Your task to perform on an android device: Open Youtube and go to the subscriptions tab Image 0: 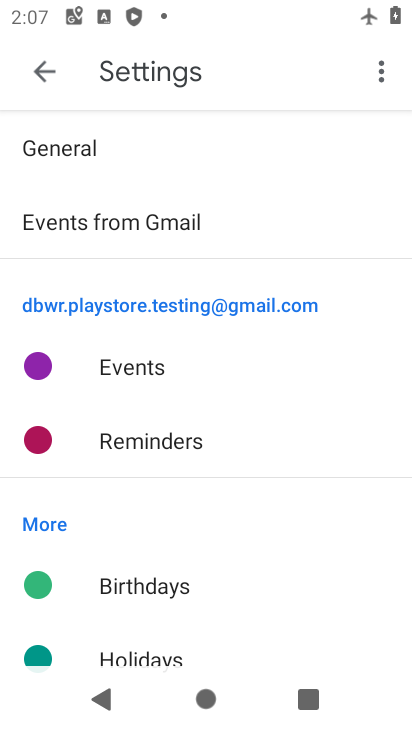
Step 0: press home button
Your task to perform on an android device: Open Youtube and go to the subscriptions tab Image 1: 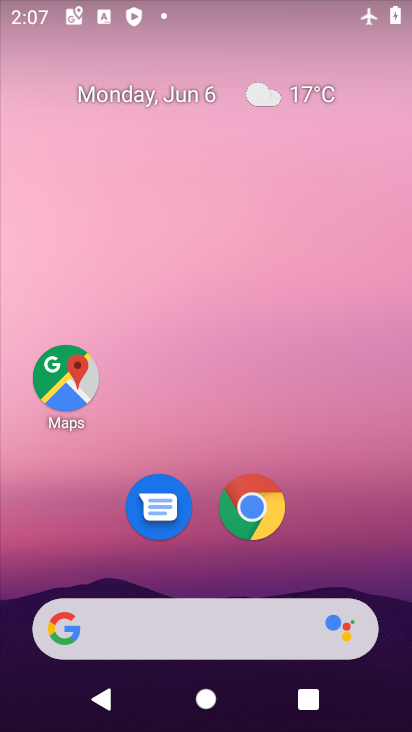
Step 1: drag from (304, 539) to (340, 1)
Your task to perform on an android device: Open Youtube and go to the subscriptions tab Image 2: 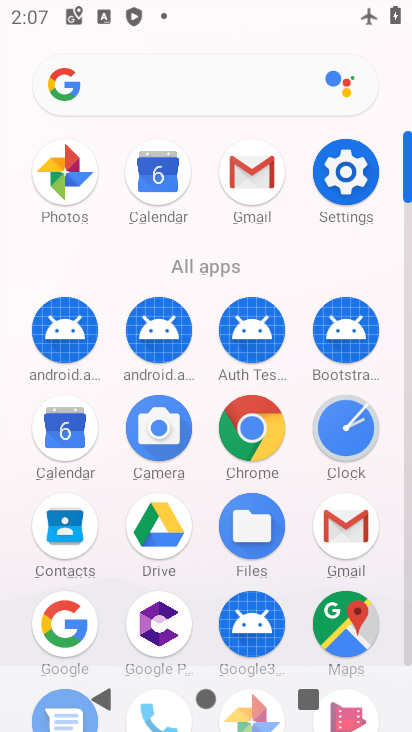
Step 2: drag from (297, 544) to (295, 250)
Your task to perform on an android device: Open Youtube and go to the subscriptions tab Image 3: 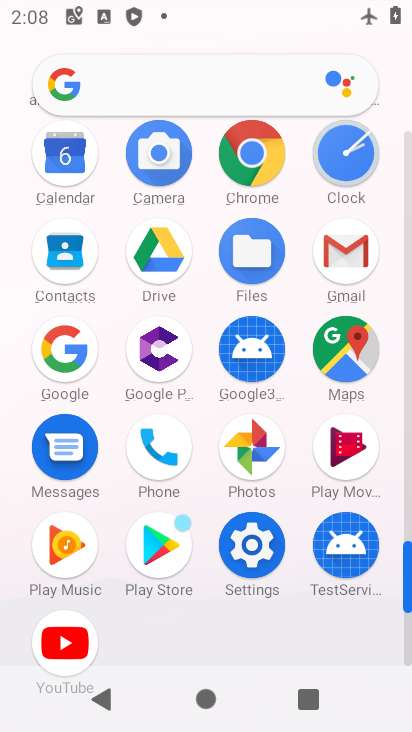
Step 3: click (59, 640)
Your task to perform on an android device: Open Youtube and go to the subscriptions tab Image 4: 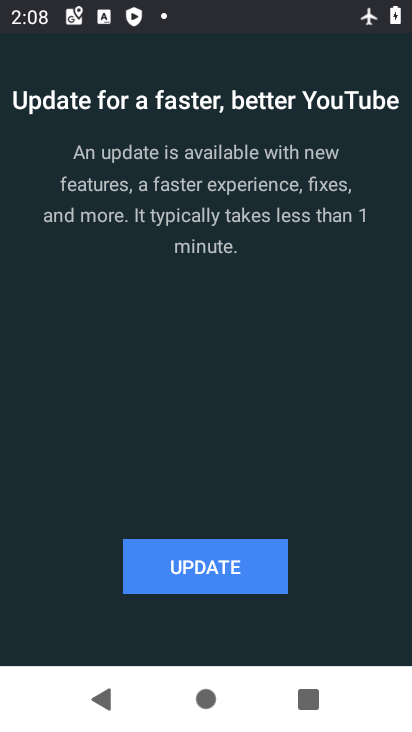
Step 4: click (180, 563)
Your task to perform on an android device: Open Youtube and go to the subscriptions tab Image 5: 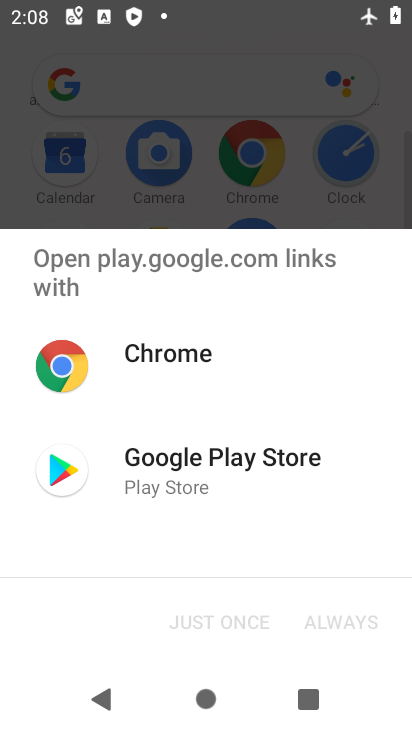
Step 5: click (156, 455)
Your task to perform on an android device: Open Youtube and go to the subscriptions tab Image 6: 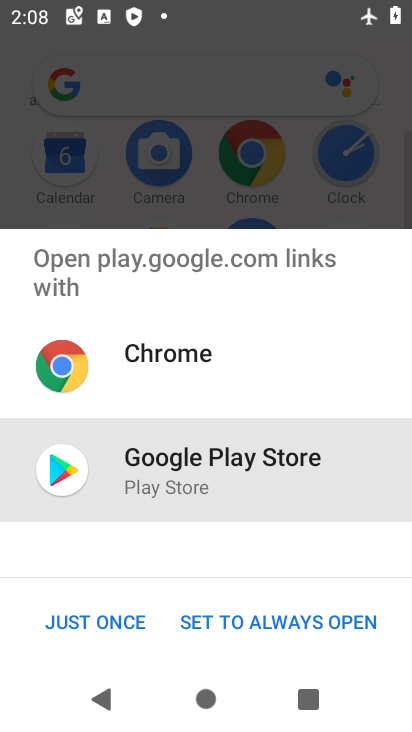
Step 6: click (133, 615)
Your task to perform on an android device: Open Youtube and go to the subscriptions tab Image 7: 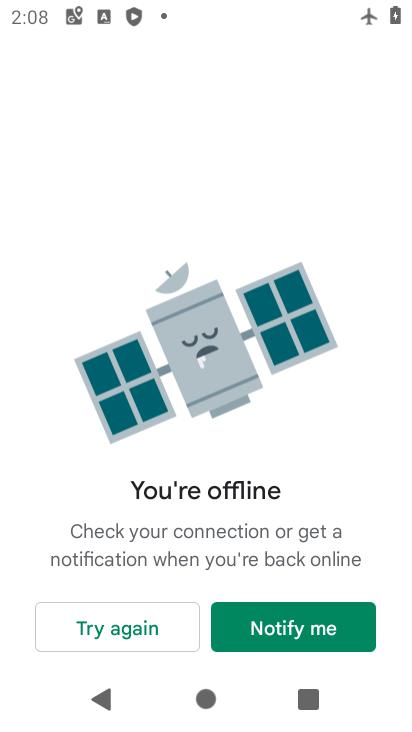
Step 7: task complete